Your task to perform on an android device: Open the map Image 0: 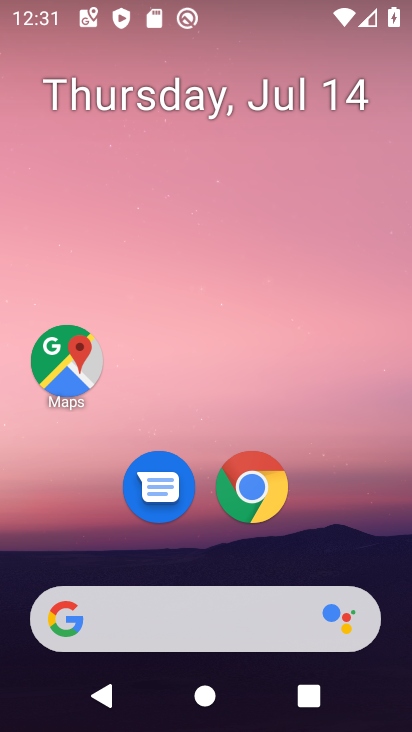
Step 0: drag from (183, 547) to (167, 103)
Your task to perform on an android device: Open the map Image 1: 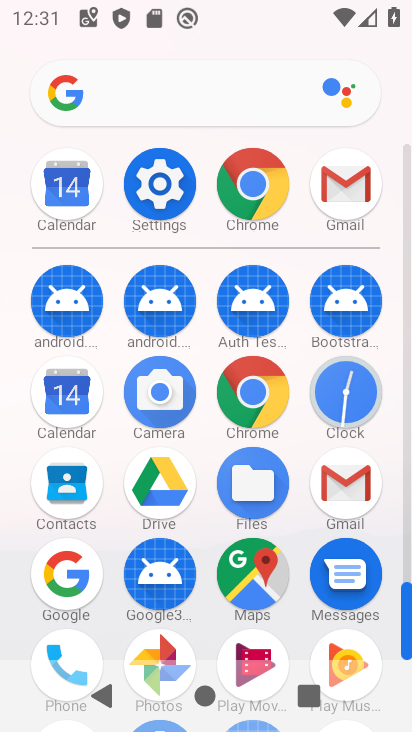
Step 1: click (250, 584)
Your task to perform on an android device: Open the map Image 2: 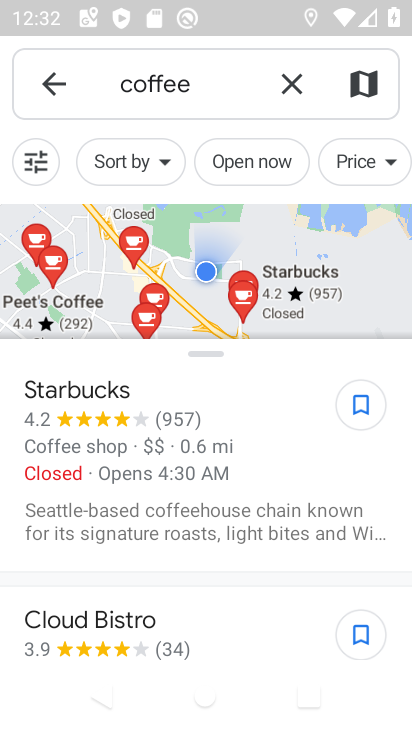
Step 2: task complete